Your task to perform on an android device: Open settings on Google Maps Image 0: 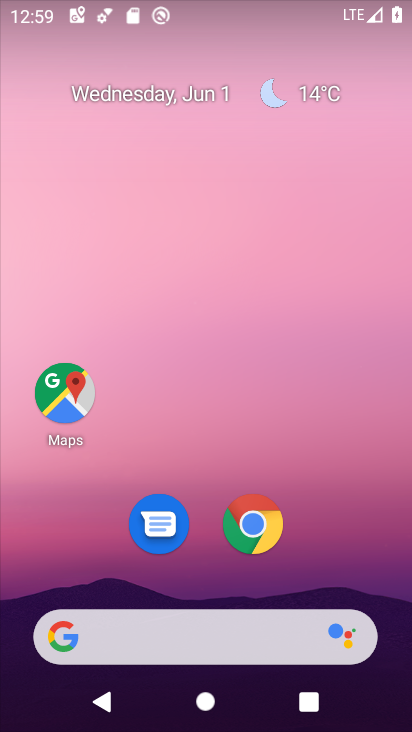
Step 0: click (61, 395)
Your task to perform on an android device: Open settings on Google Maps Image 1: 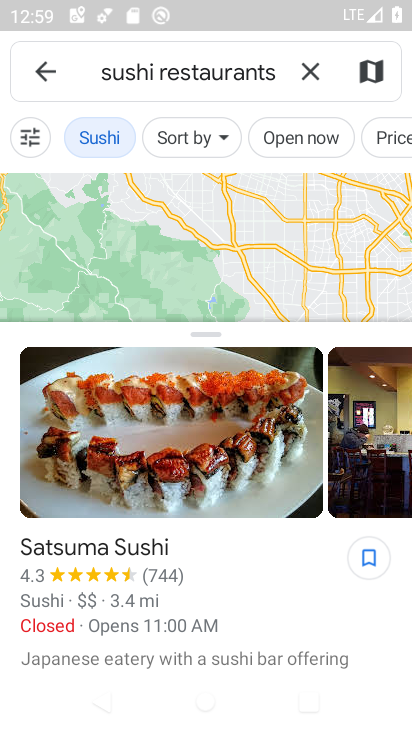
Step 1: click (309, 69)
Your task to perform on an android device: Open settings on Google Maps Image 2: 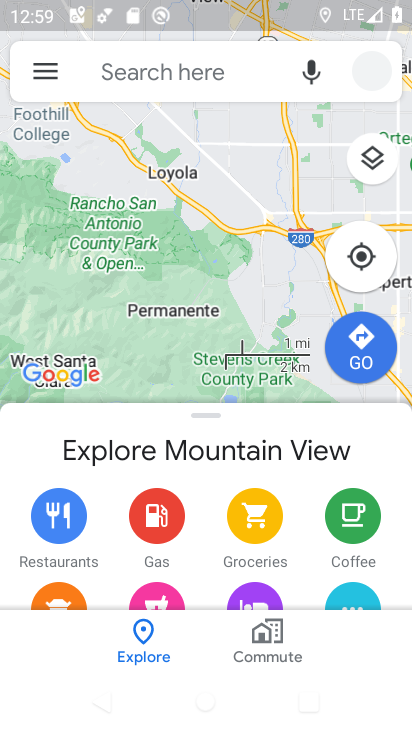
Step 2: click (44, 65)
Your task to perform on an android device: Open settings on Google Maps Image 3: 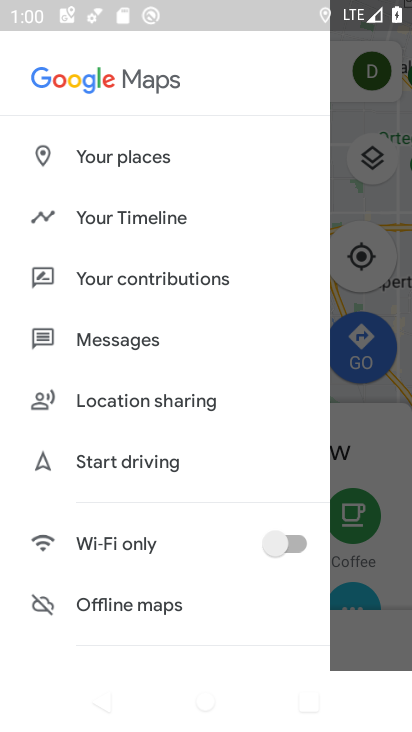
Step 3: drag from (213, 468) to (204, 81)
Your task to perform on an android device: Open settings on Google Maps Image 4: 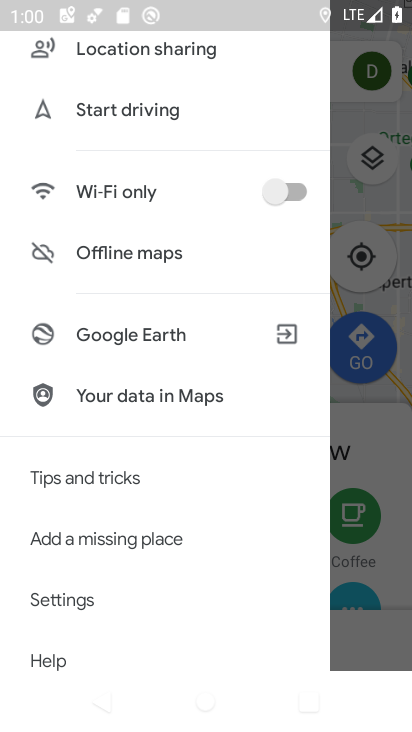
Step 4: click (89, 597)
Your task to perform on an android device: Open settings on Google Maps Image 5: 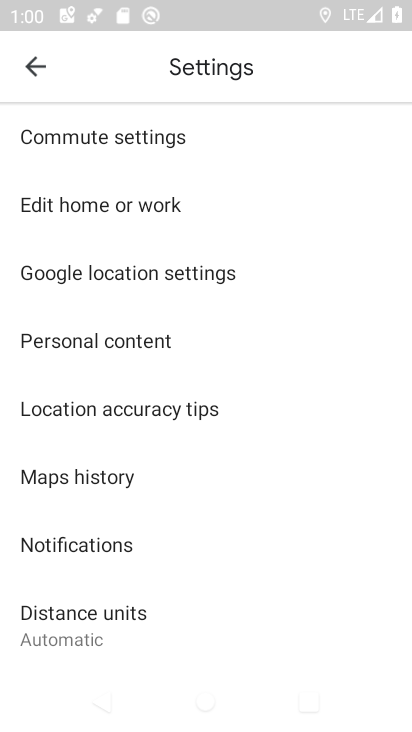
Step 5: task complete